Your task to perform on an android device: Go to notification settings Image 0: 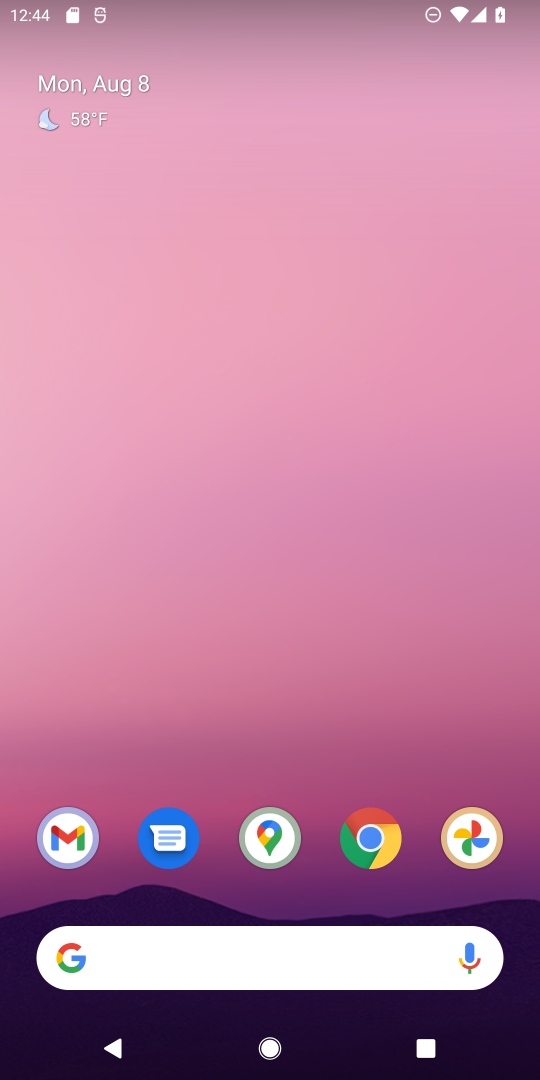
Step 0: press home button
Your task to perform on an android device: Go to notification settings Image 1: 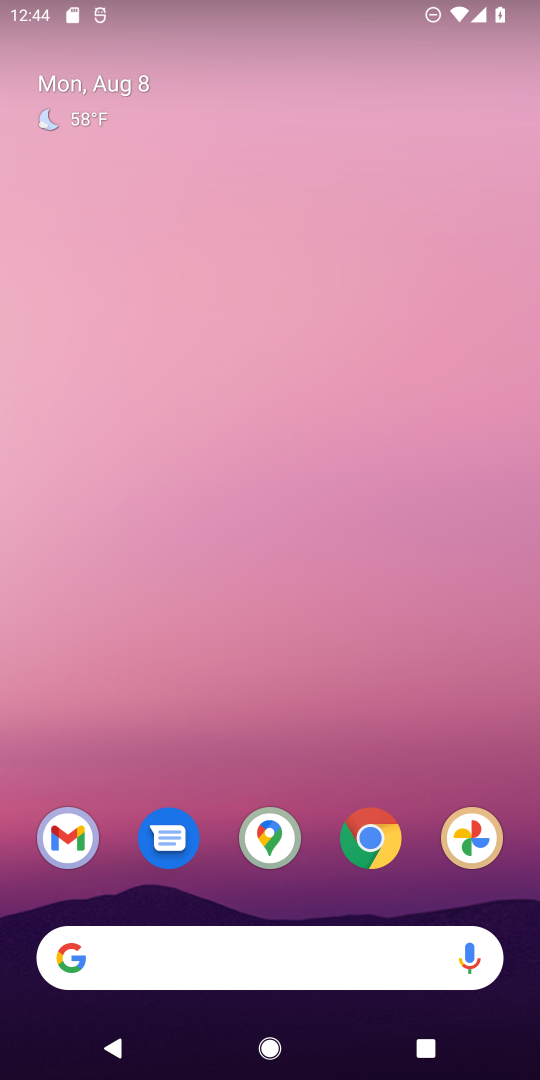
Step 1: press home button
Your task to perform on an android device: Go to notification settings Image 2: 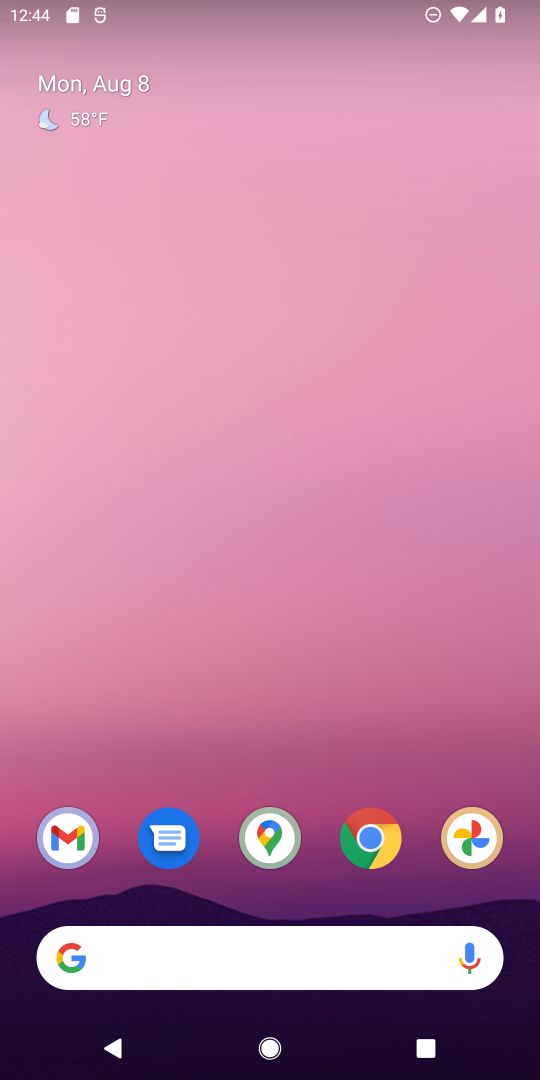
Step 2: drag from (236, 680) to (523, 792)
Your task to perform on an android device: Go to notification settings Image 3: 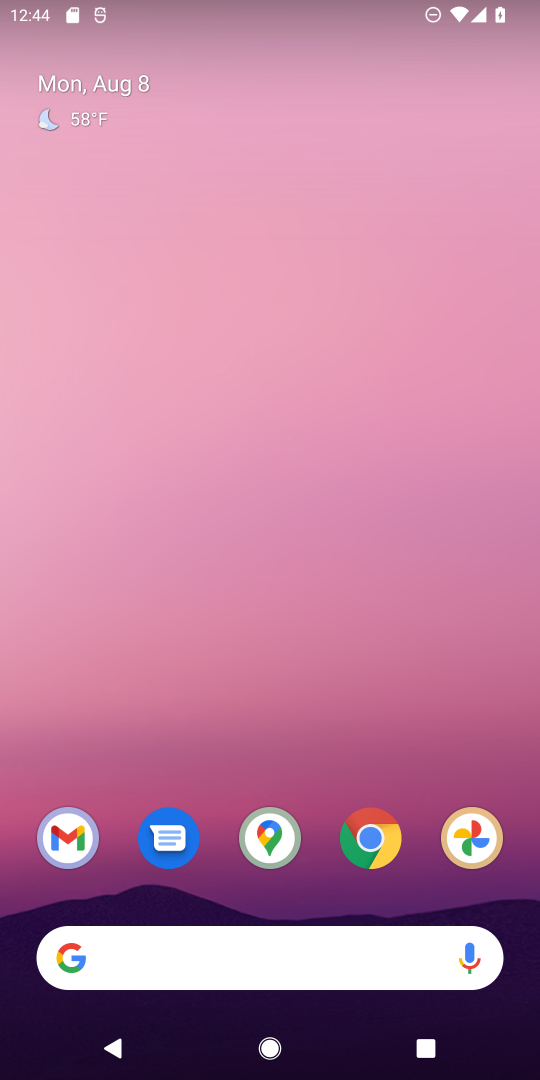
Step 3: drag from (272, 781) to (260, 9)
Your task to perform on an android device: Go to notification settings Image 4: 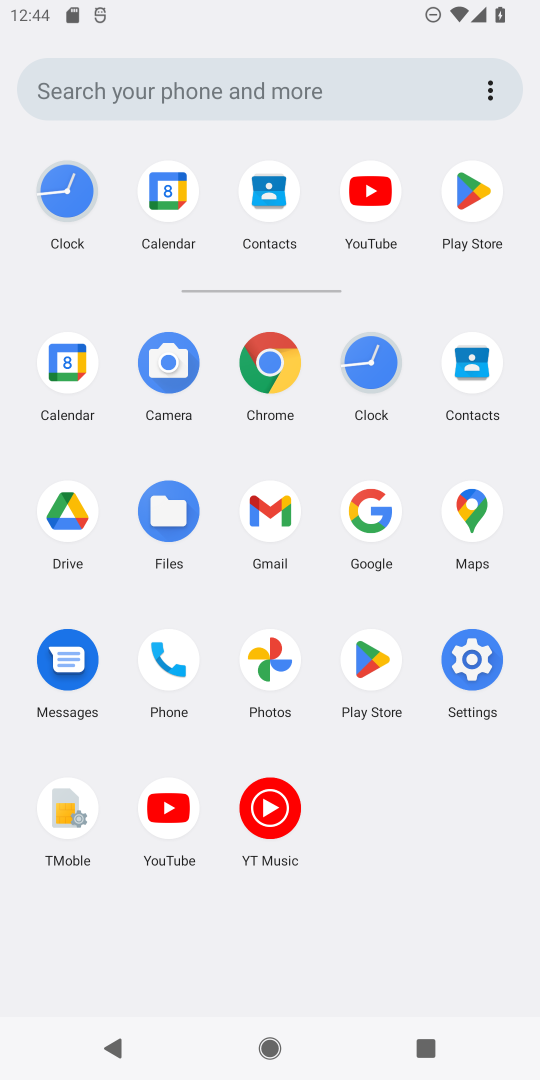
Step 4: click (458, 653)
Your task to perform on an android device: Go to notification settings Image 5: 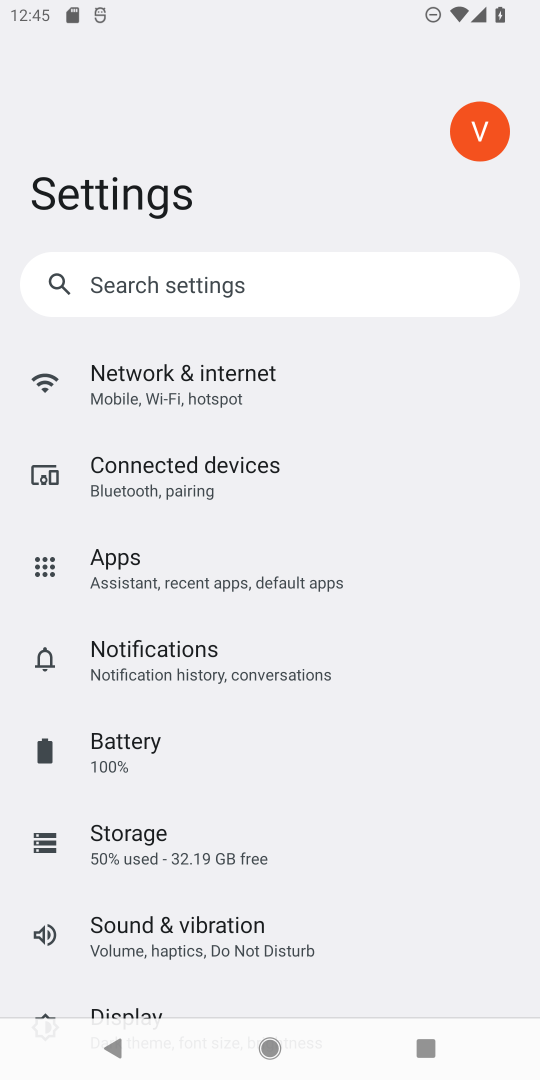
Step 5: click (157, 641)
Your task to perform on an android device: Go to notification settings Image 6: 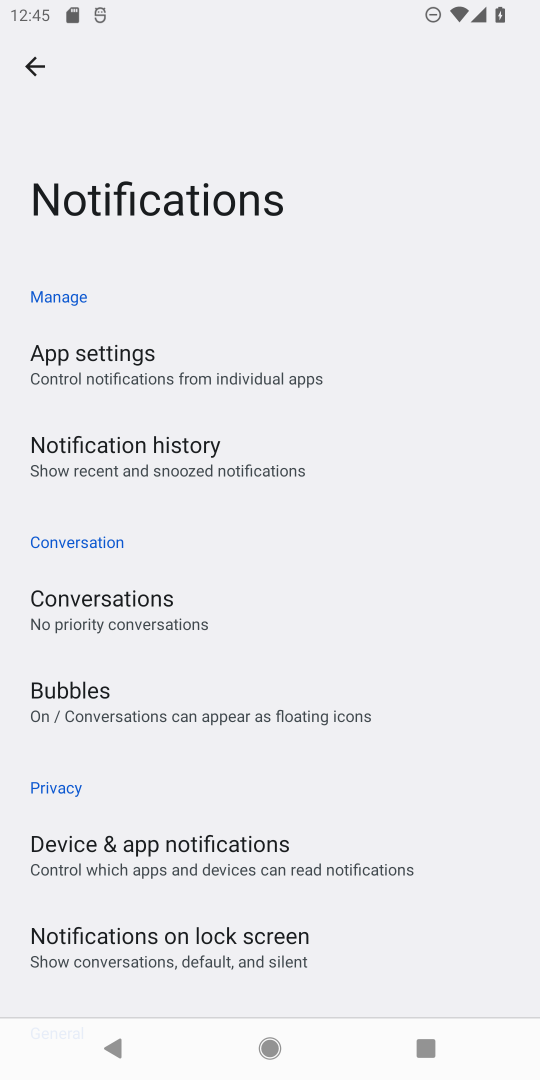
Step 6: task complete